Your task to perform on an android device: Open the Play Movies app and select the watchlist tab. Image 0: 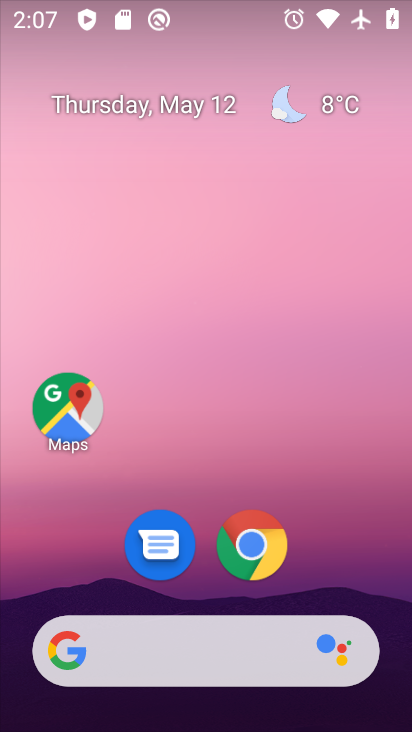
Step 0: drag from (400, 636) to (261, 47)
Your task to perform on an android device: Open the Play Movies app and select the watchlist tab. Image 1: 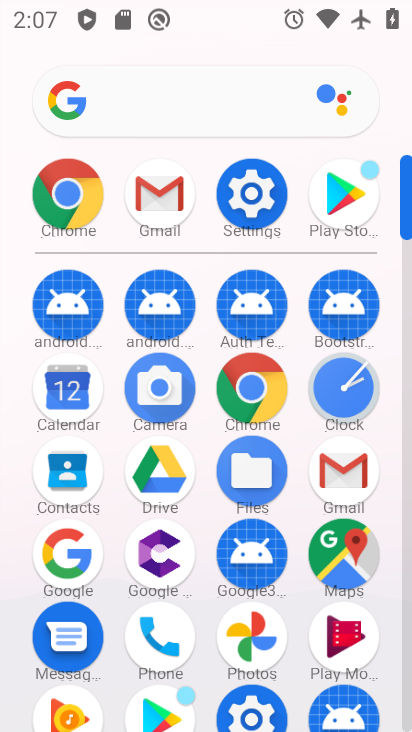
Step 1: click (407, 711)
Your task to perform on an android device: Open the Play Movies app and select the watchlist tab. Image 2: 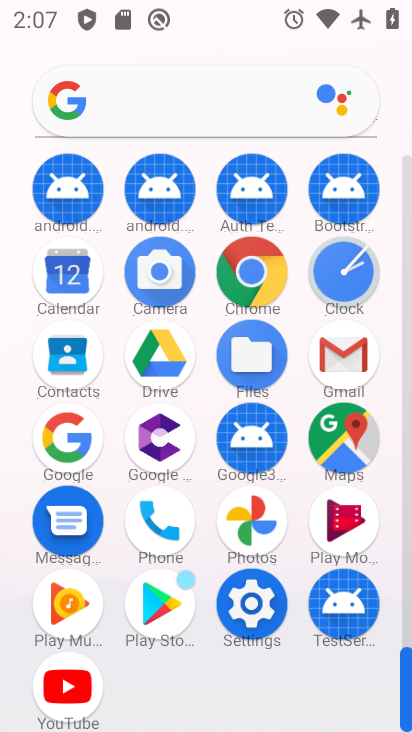
Step 2: click (341, 517)
Your task to perform on an android device: Open the Play Movies app and select the watchlist tab. Image 3: 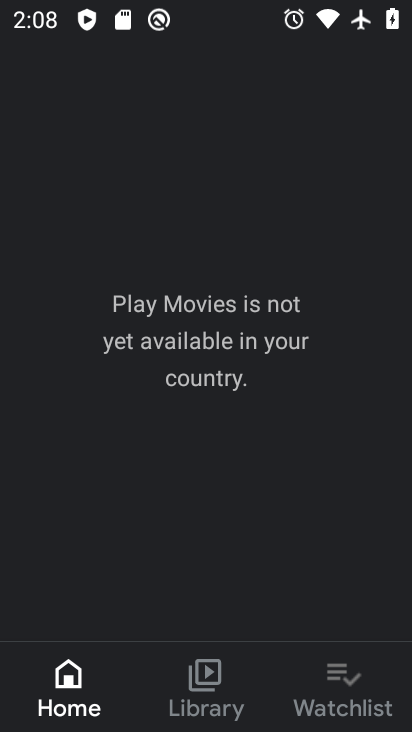
Step 3: click (343, 685)
Your task to perform on an android device: Open the Play Movies app and select the watchlist tab. Image 4: 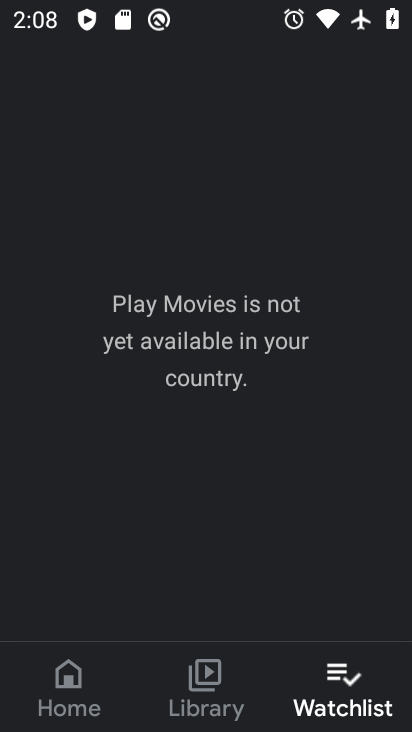
Step 4: task complete